Your task to perform on an android device: turn on bluetooth scan Image 0: 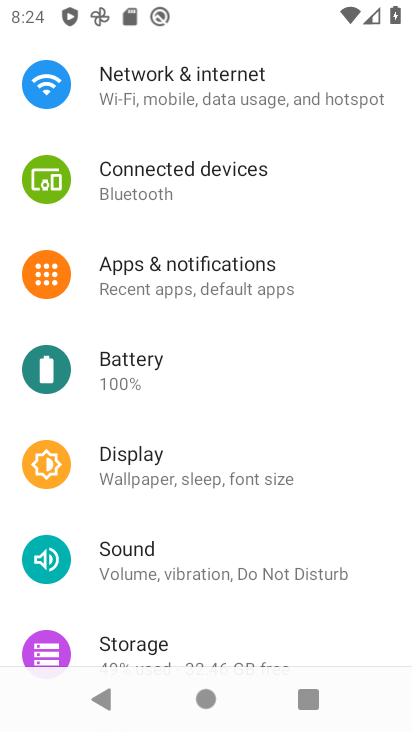
Step 0: press home button
Your task to perform on an android device: turn on bluetooth scan Image 1: 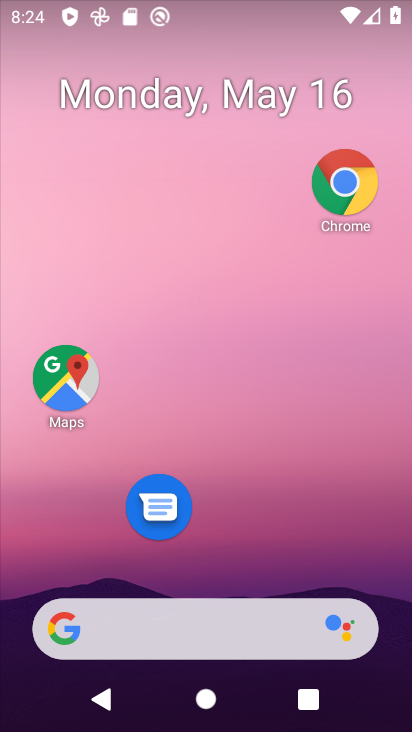
Step 1: drag from (246, 532) to (306, 70)
Your task to perform on an android device: turn on bluetooth scan Image 2: 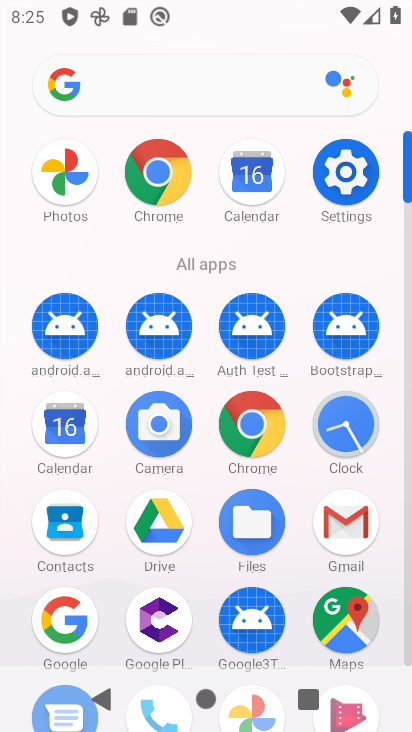
Step 2: drag from (277, 255) to (286, 216)
Your task to perform on an android device: turn on bluetooth scan Image 3: 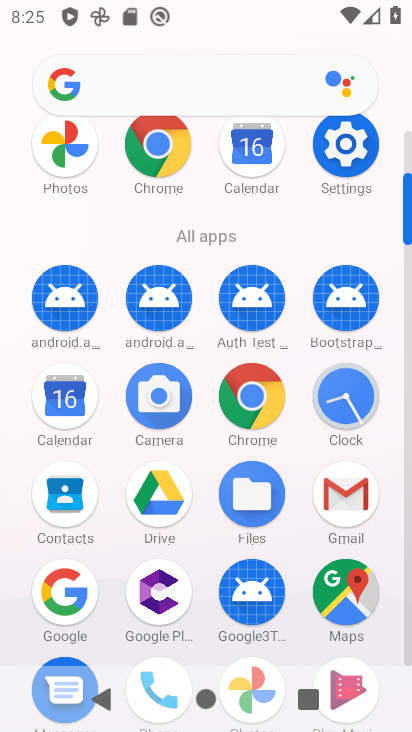
Step 3: click (349, 145)
Your task to perform on an android device: turn on bluetooth scan Image 4: 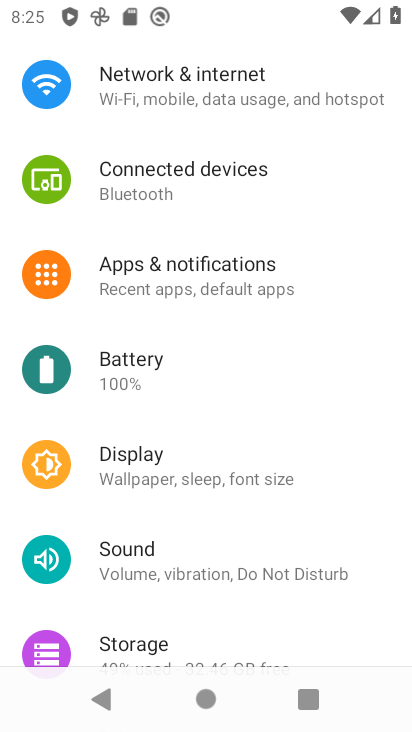
Step 4: drag from (290, 617) to (320, 256)
Your task to perform on an android device: turn on bluetooth scan Image 5: 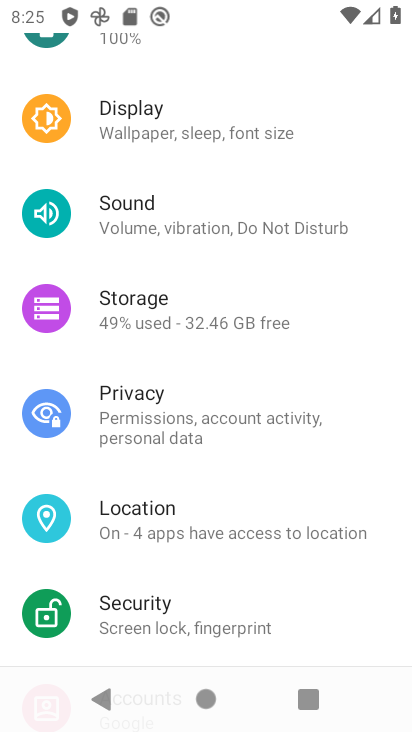
Step 5: click (232, 535)
Your task to perform on an android device: turn on bluetooth scan Image 6: 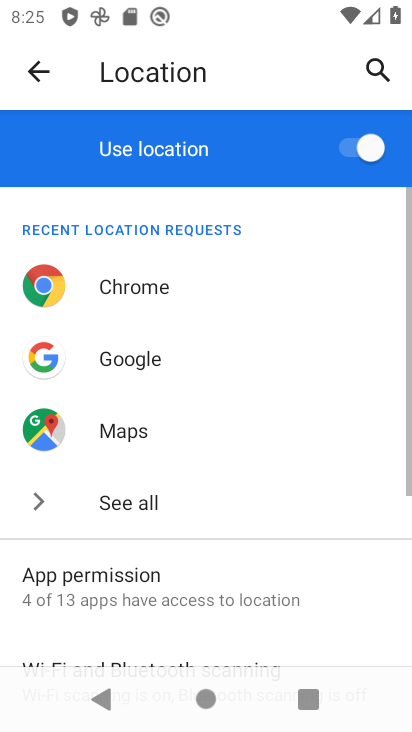
Step 6: drag from (262, 557) to (306, 231)
Your task to perform on an android device: turn on bluetooth scan Image 7: 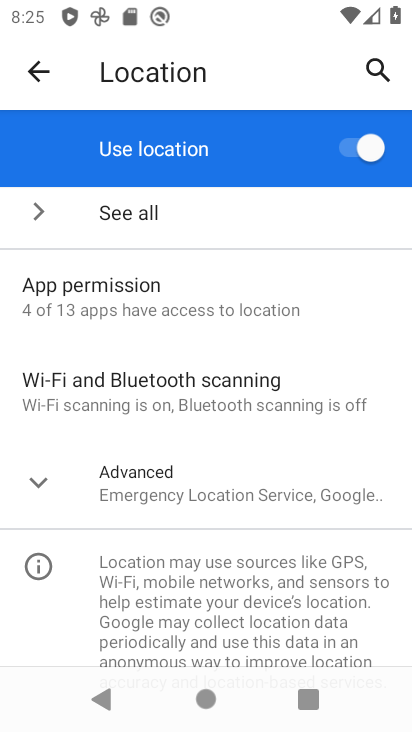
Step 7: click (197, 390)
Your task to perform on an android device: turn on bluetooth scan Image 8: 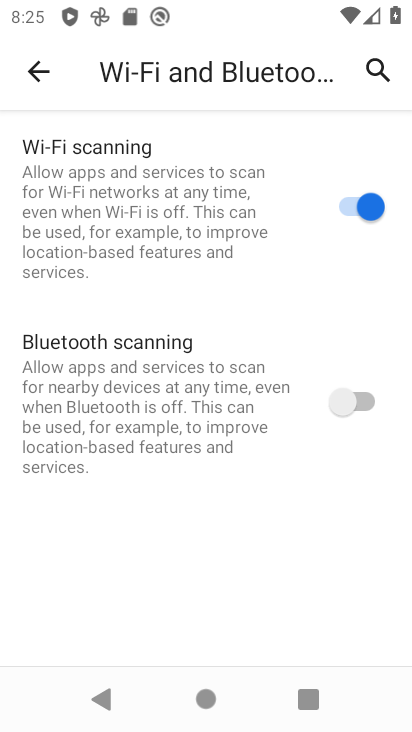
Step 8: click (345, 397)
Your task to perform on an android device: turn on bluetooth scan Image 9: 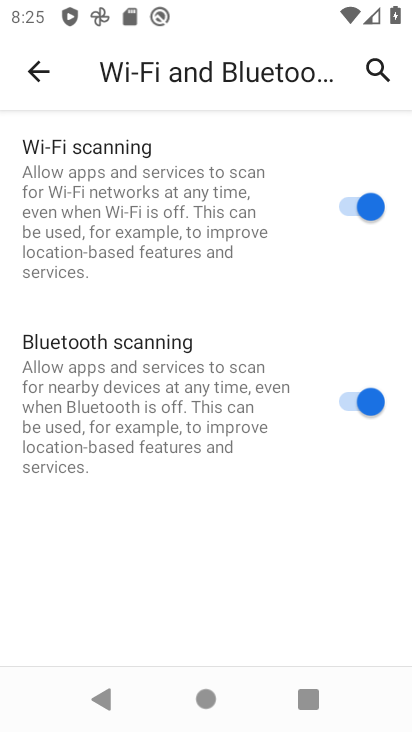
Step 9: task complete